Your task to perform on an android device: change alarm snooze length Image 0: 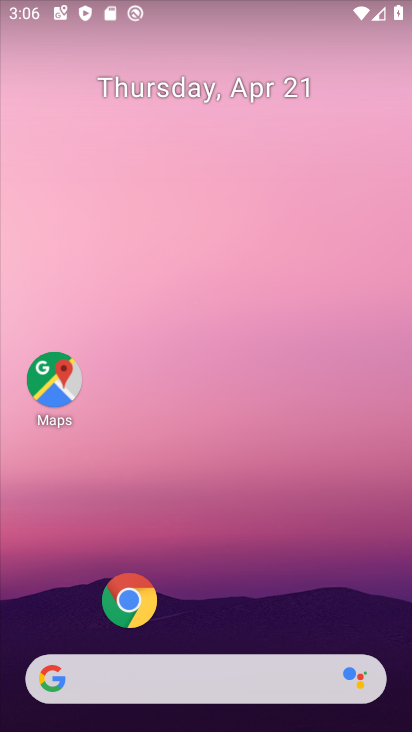
Step 0: drag from (301, 577) to (279, 188)
Your task to perform on an android device: change alarm snooze length Image 1: 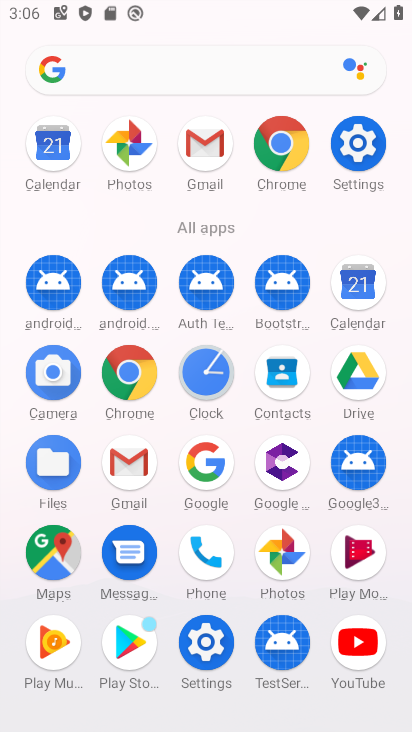
Step 1: drag from (274, 617) to (248, 374)
Your task to perform on an android device: change alarm snooze length Image 2: 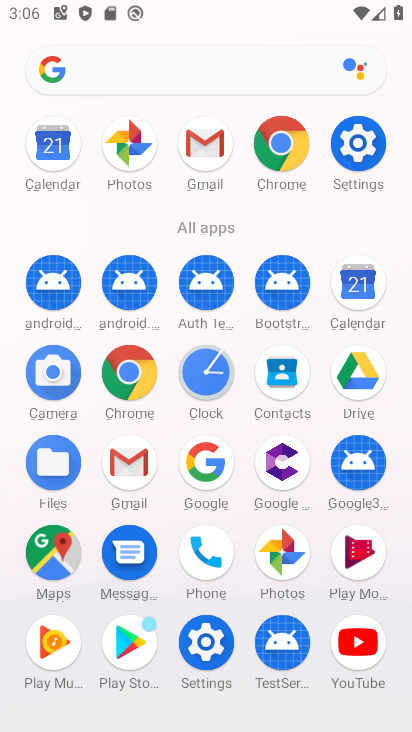
Step 2: click (216, 369)
Your task to perform on an android device: change alarm snooze length Image 3: 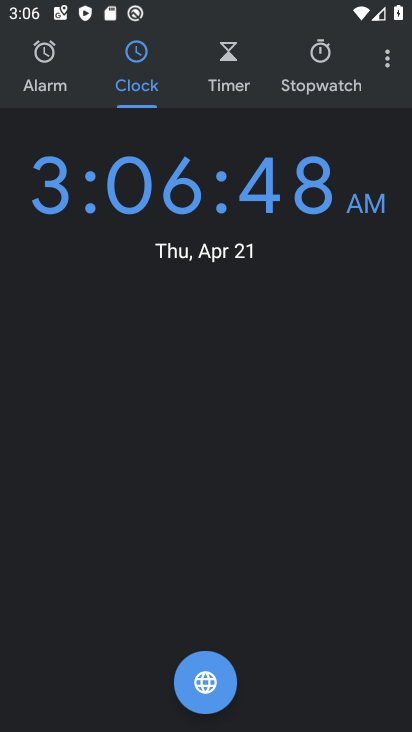
Step 3: click (386, 69)
Your task to perform on an android device: change alarm snooze length Image 4: 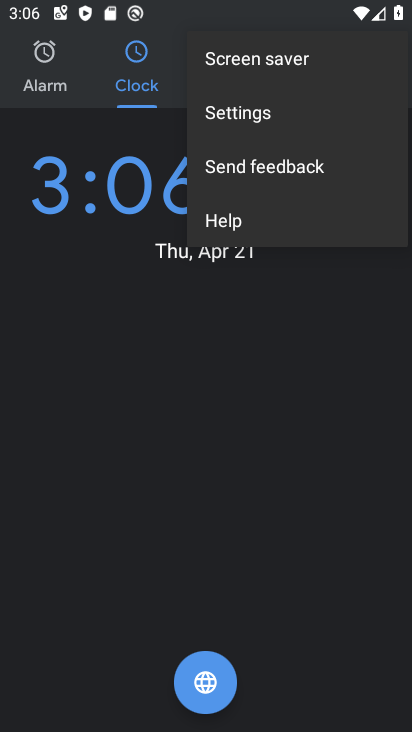
Step 4: click (290, 98)
Your task to perform on an android device: change alarm snooze length Image 5: 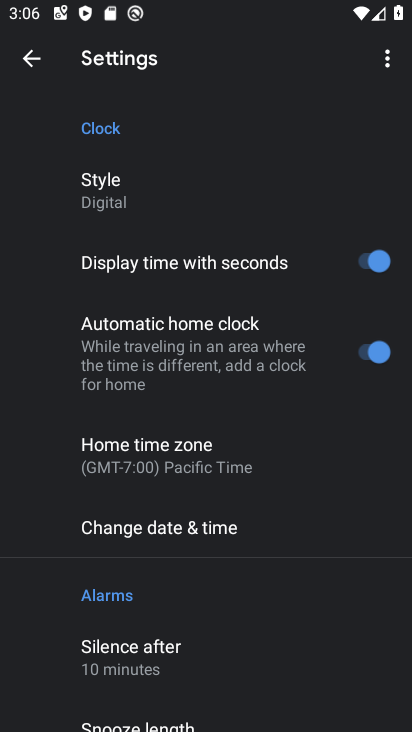
Step 5: drag from (182, 613) to (213, 303)
Your task to perform on an android device: change alarm snooze length Image 6: 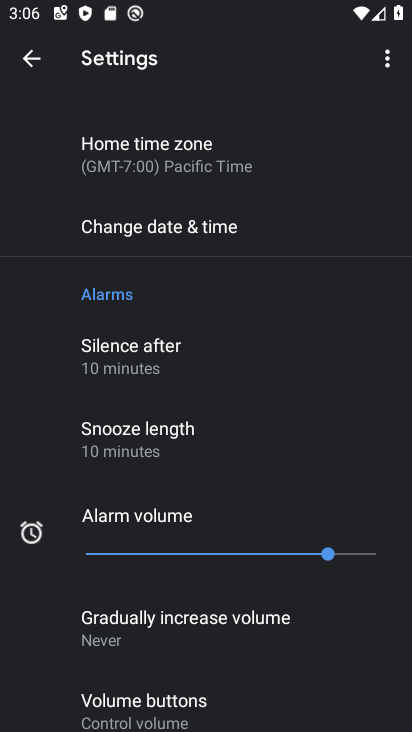
Step 6: drag from (216, 655) to (243, 322)
Your task to perform on an android device: change alarm snooze length Image 7: 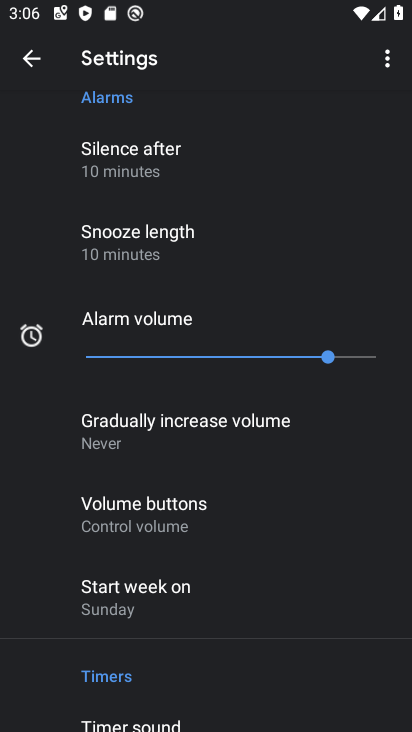
Step 7: drag from (216, 563) to (233, 275)
Your task to perform on an android device: change alarm snooze length Image 8: 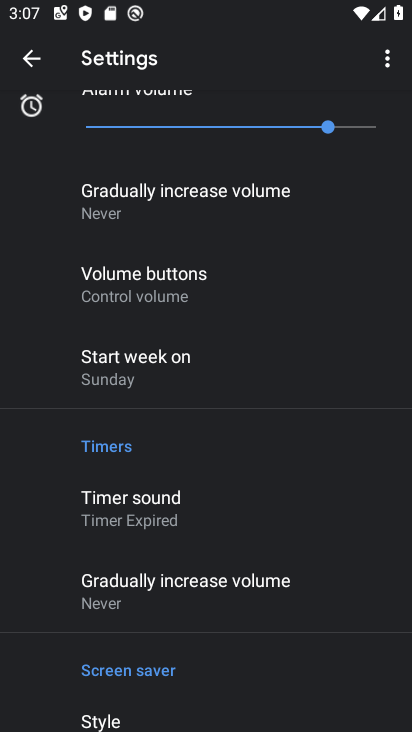
Step 8: drag from (198, 581) to (294, 643)
Your task to perform on an android device: change alarm snooze length Image 9: 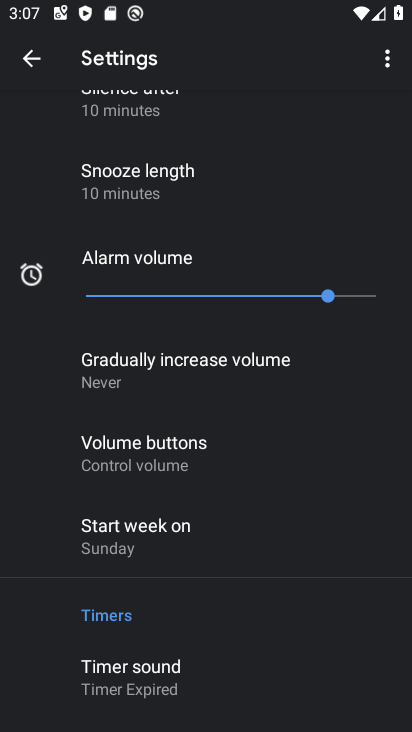
Step 9: drag from (282, 390) to (256, 615)
Your task to perform on an android device: change alarm snooze length Image 10: 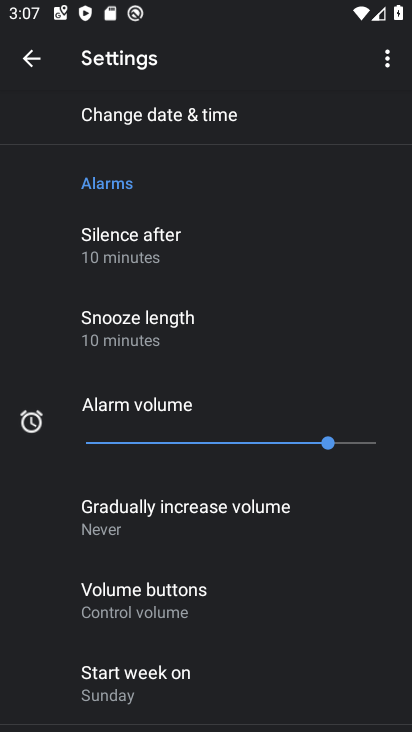
Step 10: click (213, 333)
Your task to perform on an android device: change alarm snooze length Image 11: 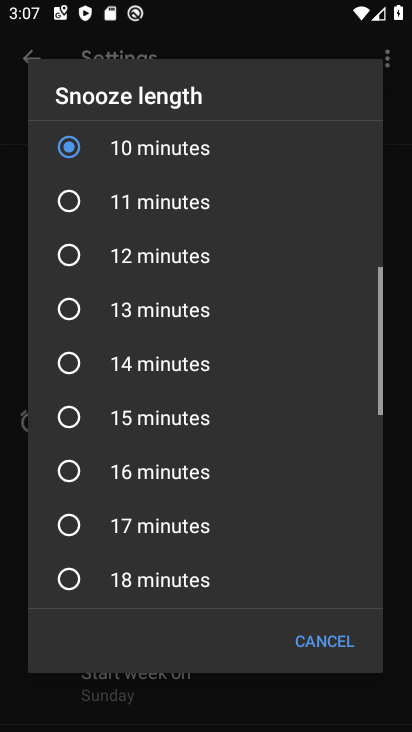
Step 11: click (143, 211)
Your task to perform on an android device: change alarm snooze length Image 12: 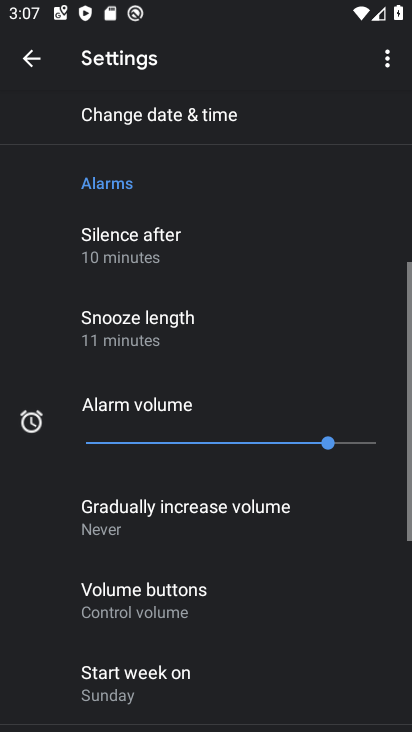
Step 12: task complete